Your task to perform on an android device: install app "Spotify: Music and Podcasts" Image 0: 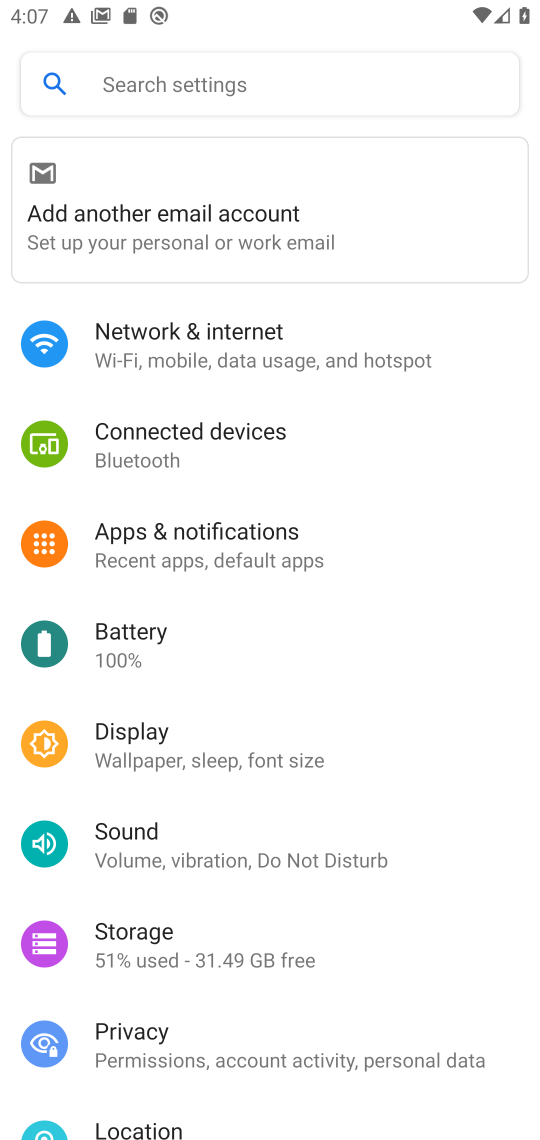
Step 0: press home button
Your task to perform on an android device: install app "Spotify: Music and Podcasts" Image 1: 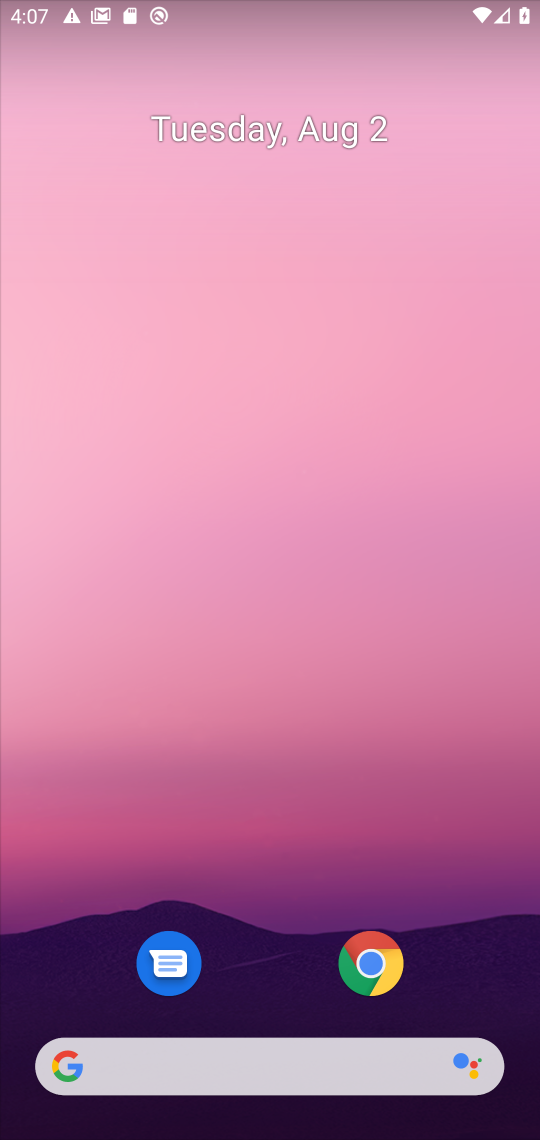
Step 1: drag from (192, 1032) to (49, 317)
Your task to perform on an android device: install app "Spotify: Music and Podcasts" Image 2: 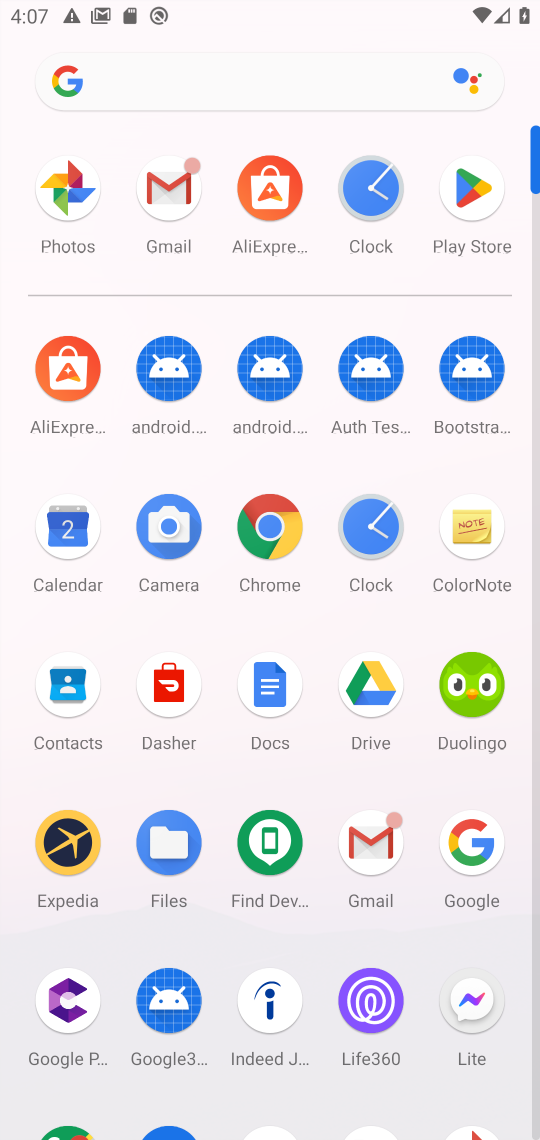
Step 2: drag from (269, 1066) to (127, 342)
Your task to perform on an android device: install app "Spotify: Music and Podcasts" Image 3: 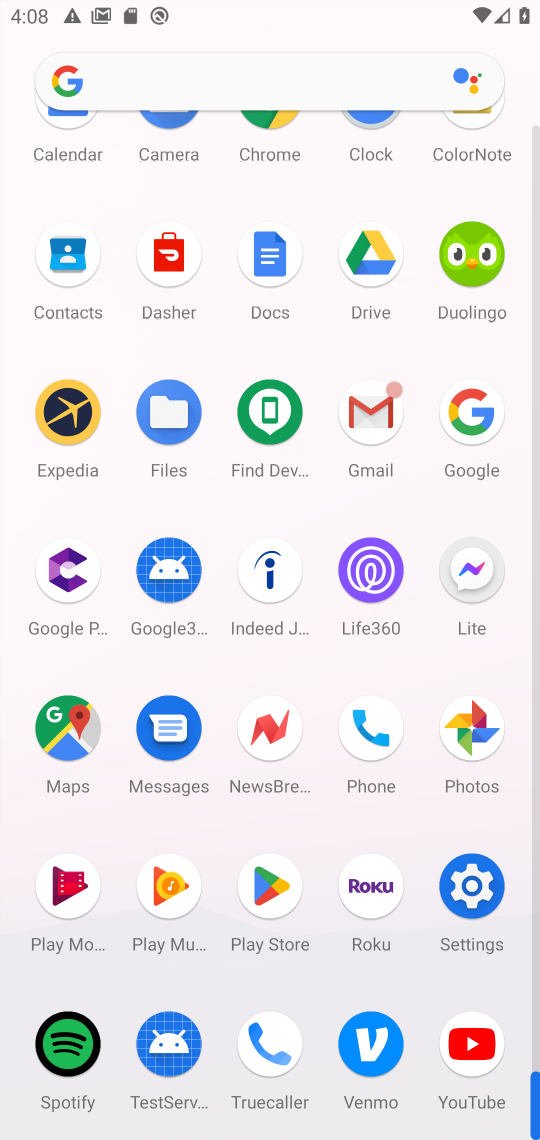
Step 3: click (70, 1050)
Your task to perform on an android device: install app "Spotify: Music and Podcasts" Image 4: 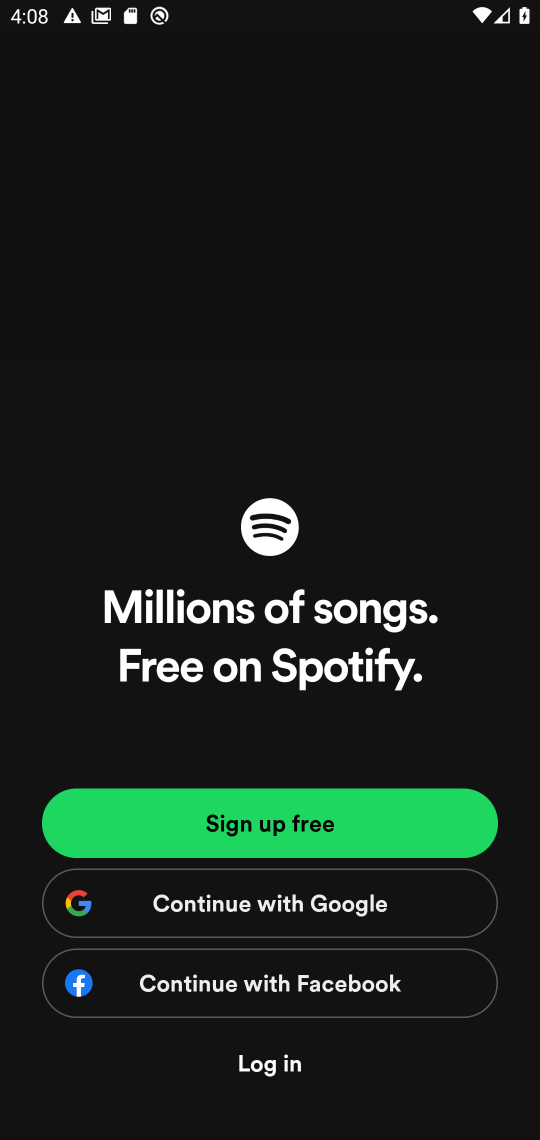
Step 4: task complete